Your task to perform on an android device: toggle location history Image 0: 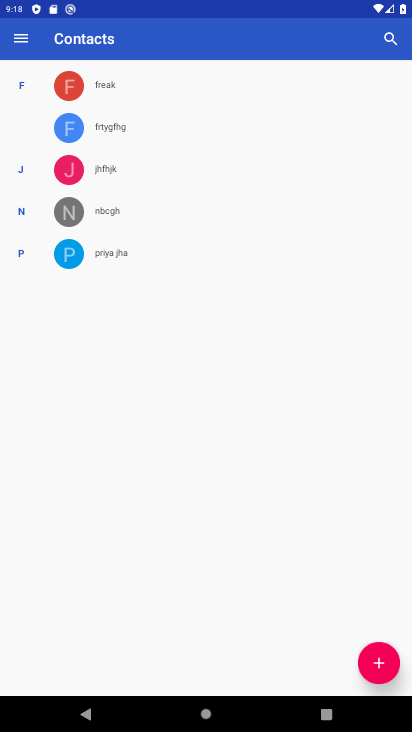
Step 0: press home button
Your task to perform on an android device: toggle location history Image 1: 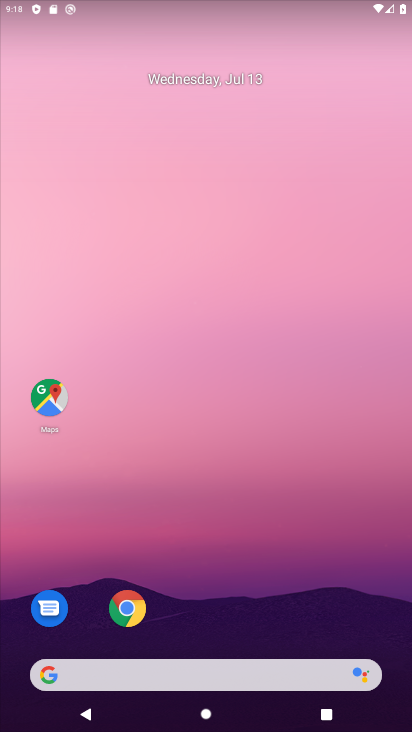
Step 1: drag from (50, 626) to (249, 70)
Your task to perform on an android device: toggle location history Image 2: 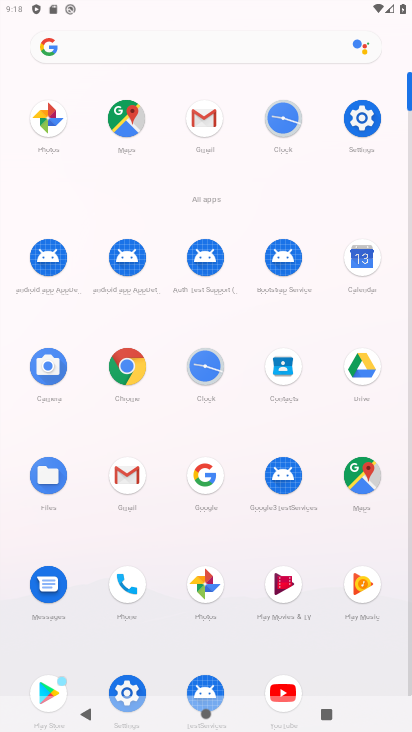
Step 2: click (119, 679)
Your task to perform on an android device: toggle location history Image 3: 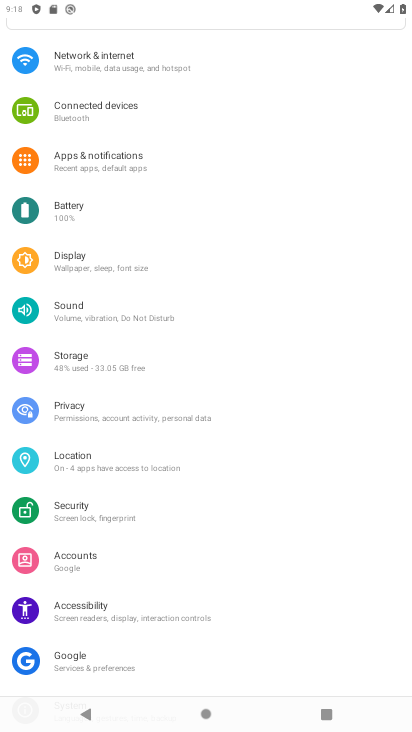
Step 3: click (87, 453)
Your task to perform on an android device: toggle location history Image 4: 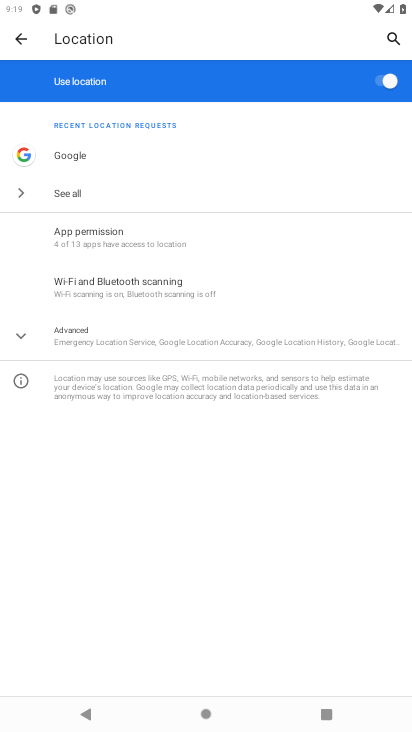
Step 4: click (87, 342)
Your task to perform on an android device: toggle location history Image 5: 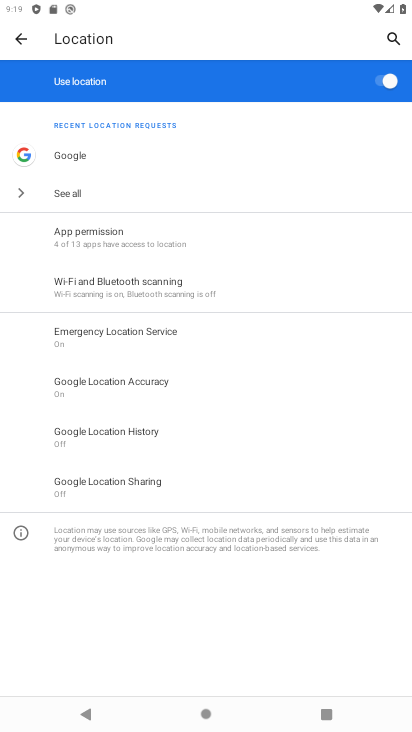
Step 5: click (148, 441)
Your task to perform on an android device: toggle location history Image 6: 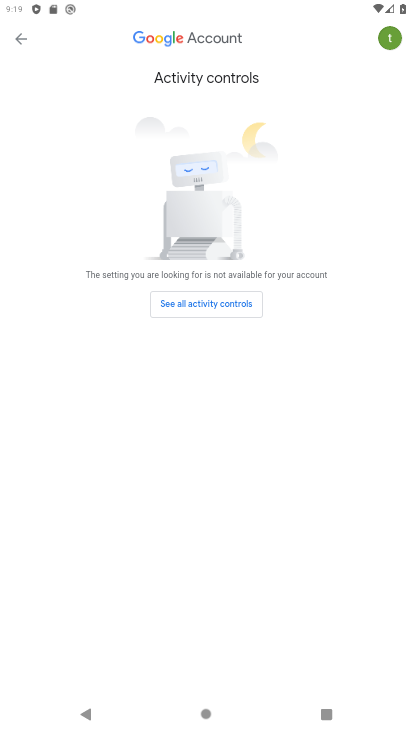
Step 6: click (199, 299)
Your task to perform on an android device: toggle location history Image 7: 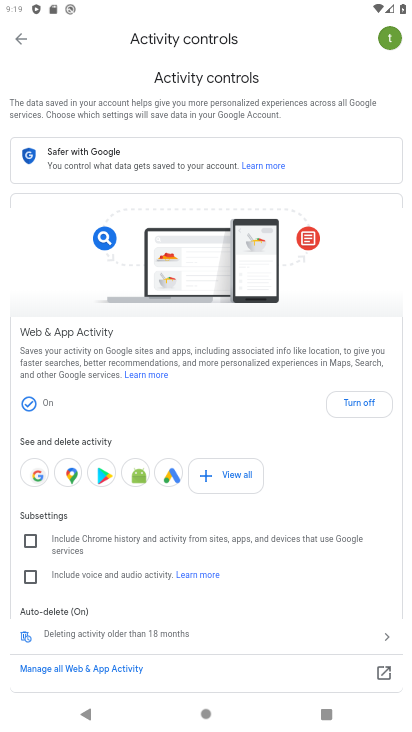
Step 7: click (355, 407)
Your task to perform on an android device: toggle location history Image 8: 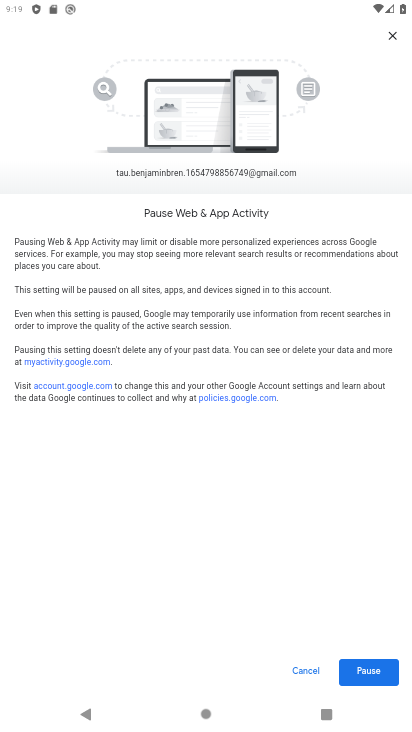
Step 8: click (364, 681)
Your task to perform on an android device: toggle location history Image 9: 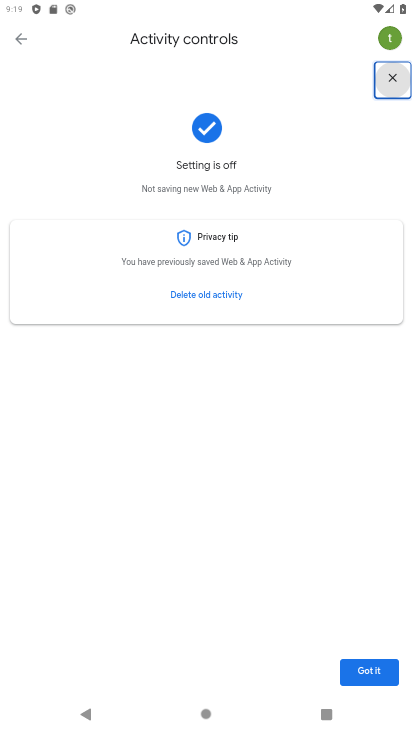
Step 9: click (384, 670)
Your task to perform on an android device: toggle location history Image 10: 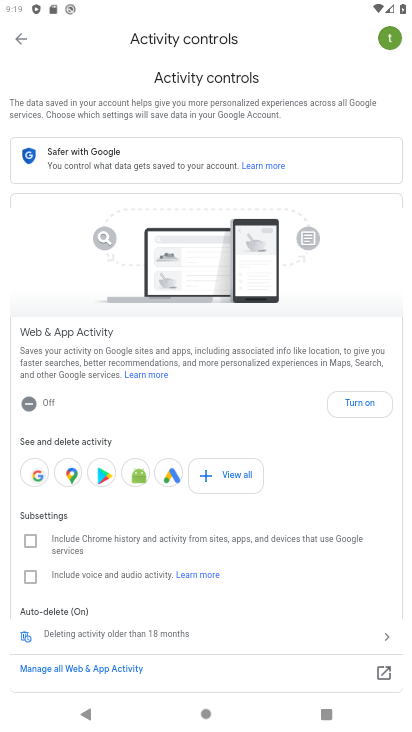
Step 10: task complete